Your task to perform on an android device: Open calendar and show me the third week of next month Image 0: 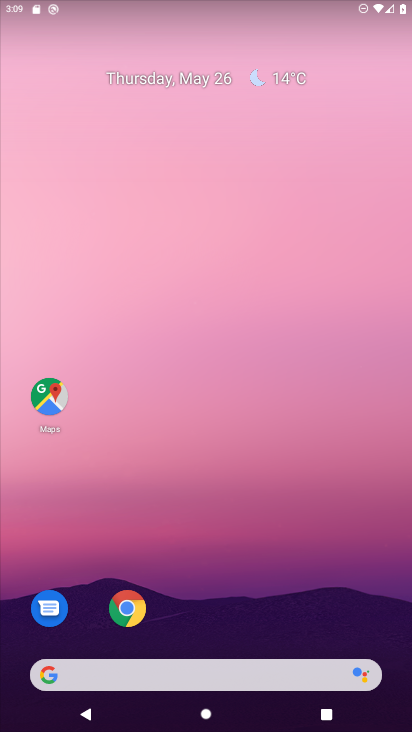
Step 0: drag from (327, 579) to (293, 91)
Your task to perform on an android device: Open calendar and show me the third week of next month Image 1: 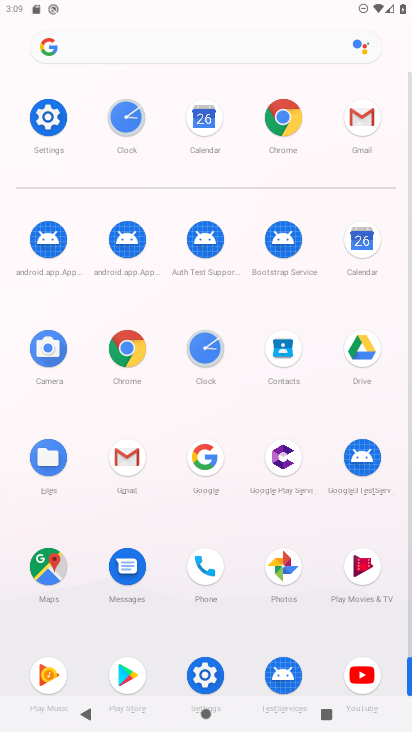
Step 1: click (363, 247)
Your task to perform on an android device: Open calendar and show me the third week of next month Image 2: 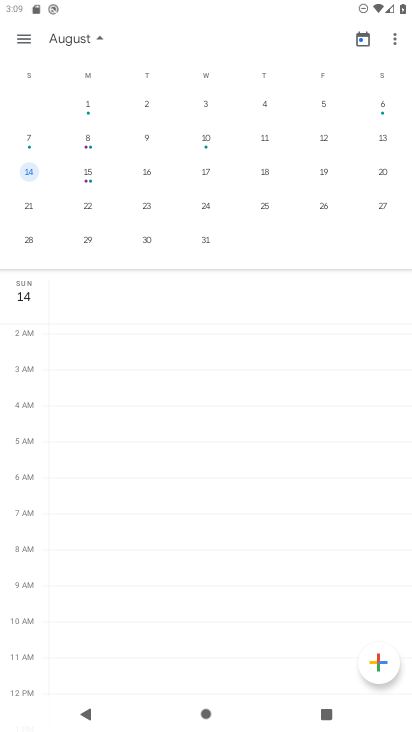
Step 2: drag from (337, 231) to (11, 174)
Your task to perform on an android device: Open calendar and show me the third week of next month Image 3: 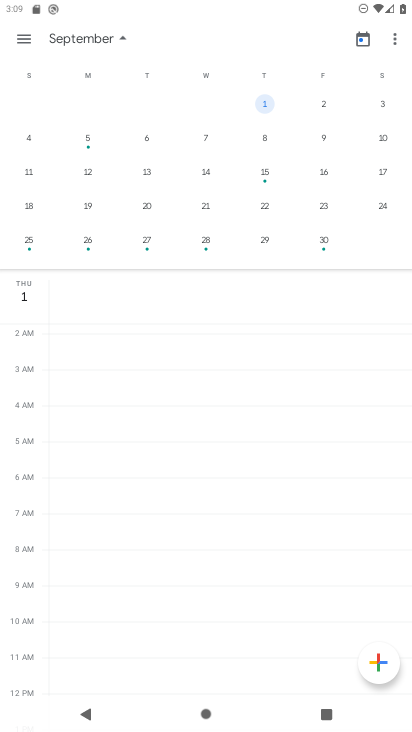
Step 3: click (200, 209)
Your task to perform on an android device: Open calendar and show me the third week of next month Image 4: 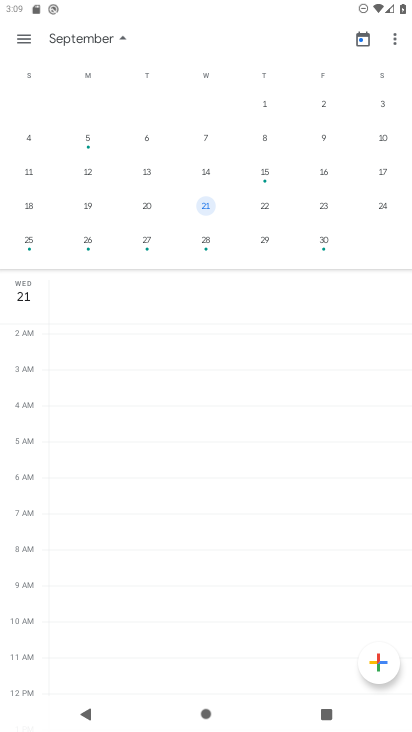
Step 4: task complete